Your task to perform on an android device: Show me popular games on the Play Store Image 0: 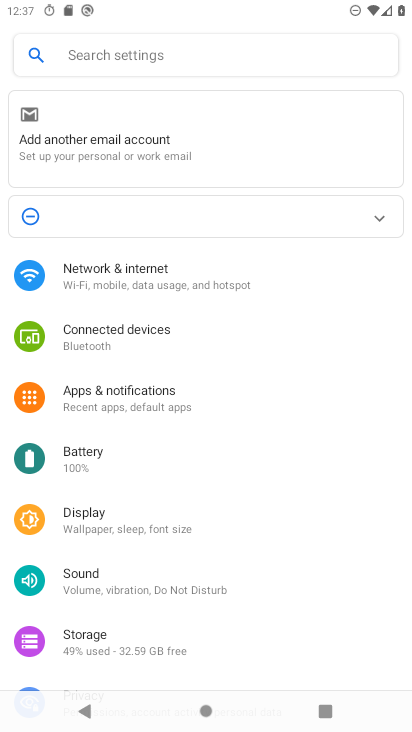
Step 0: press home button
Your task to perform on an android device: Show me popular games on the Play Store Image 1: 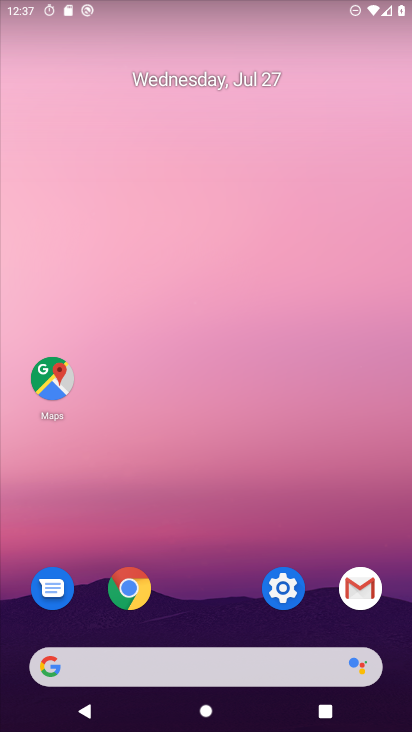
Step 1: drag from (267, 703) to (169, 98)
Your task to perform on an android device: Show me popular games on the Play Store Image 2: 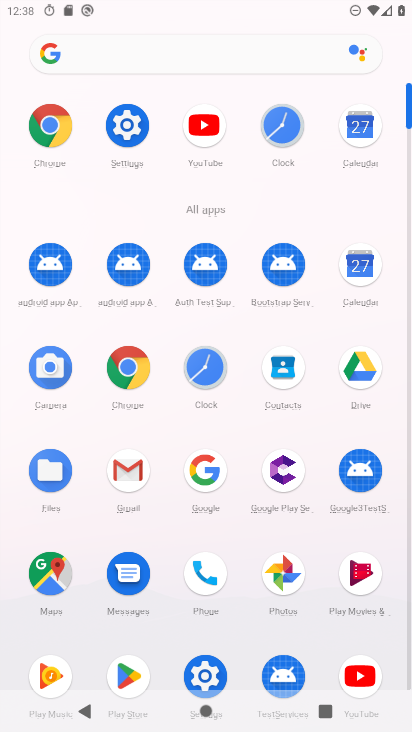
Step 2: click (127, 681)
Your task to perform on an android device: Show me popular games on the Play Store Image 3: 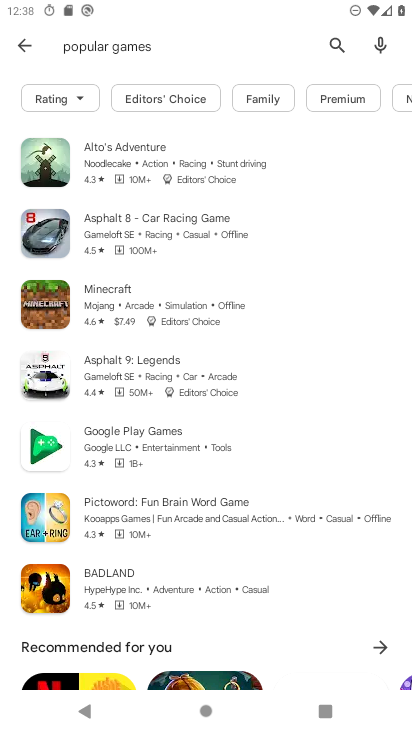
Step 3: click (232, 46)
Your task to perform on an android device: Show me popular games on the Play Store Image 4: 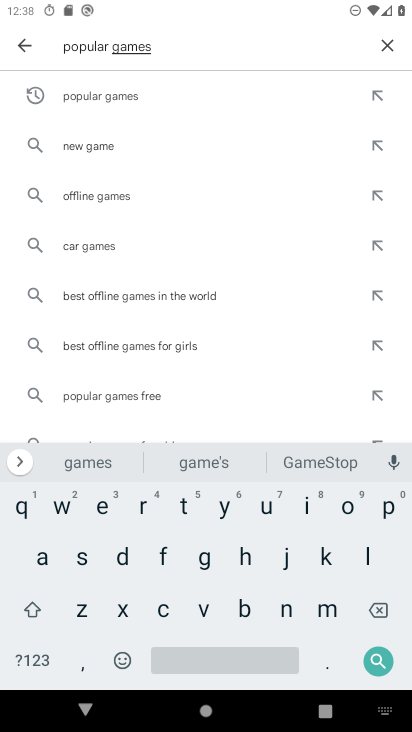
Step 4: click (374, 663)
Your task to perform on an android device: Show me popular games on the Play Store Image 5: 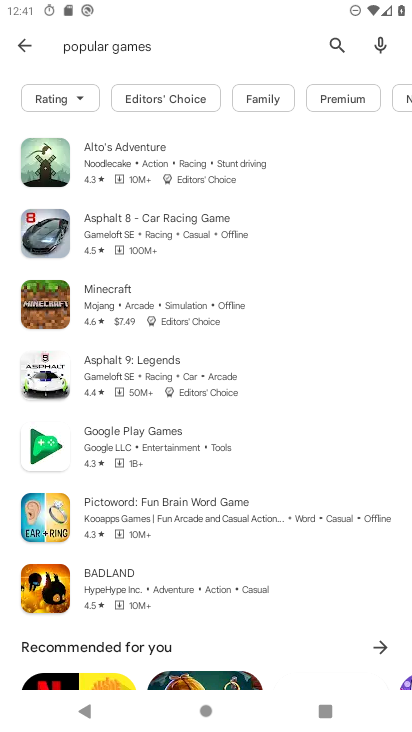
Step 5: task complete